Your task to perform on an android device: Go to Wikipedia Image 0: 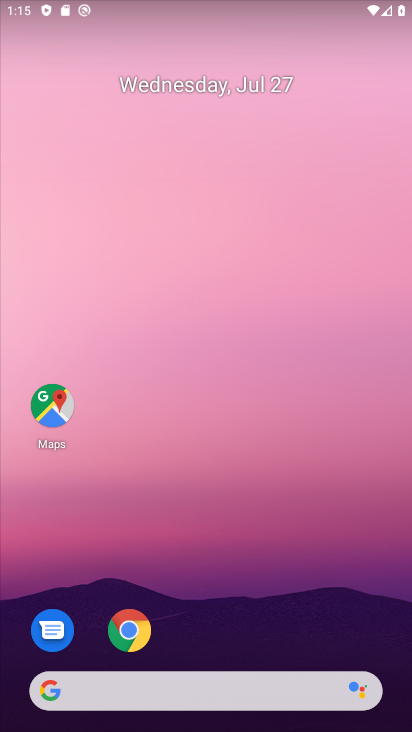
Step 0: drag from (221, 673) to (288, 143)
Your task to perform on an android device: Go to Wikipedia Image 1: 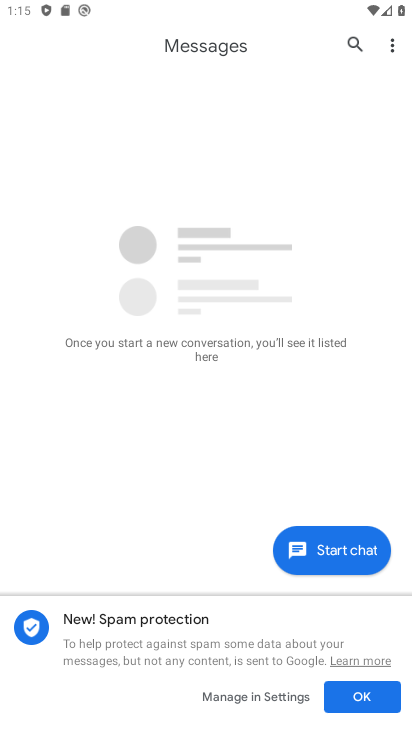
Step 1: press home button
Your task to perform on an android device: Go to Wikipedia Image 2: 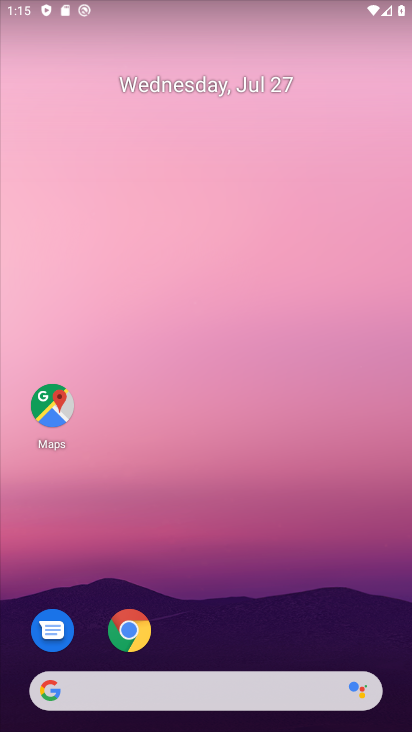
Step 2: click (149, 632)
Your task to perform on an android device: Go to Wikipedia Image 3: 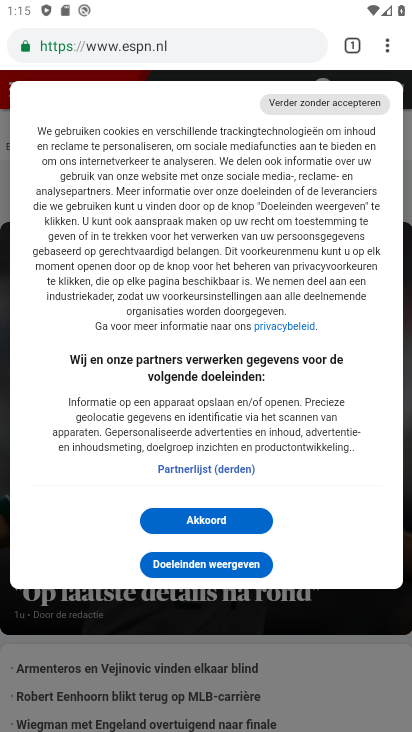
Step 3: click (174, 42)
Your task to perform on an android device: Go to Wikipedia Image 4: 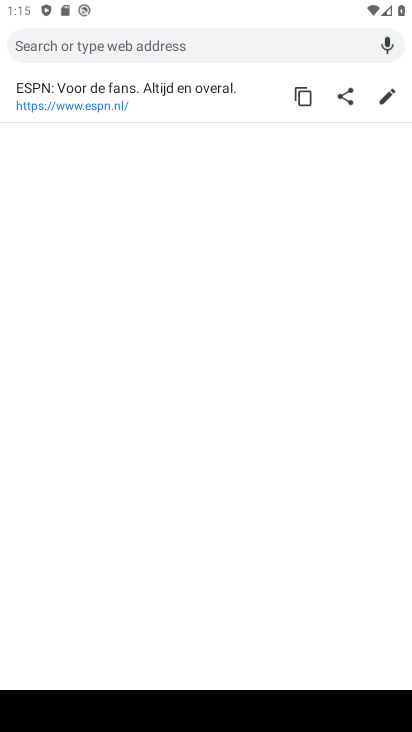
Step 4: type "wikipedia"
Your task to perform on an android device: Go to Wikipedia Image 5: 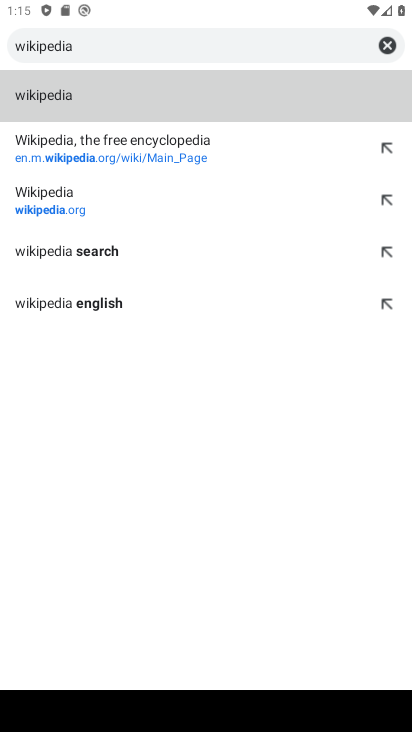
Step 5: click (125, 144)
Your task to perform on an android device: Go to Wikipedia Image 6: 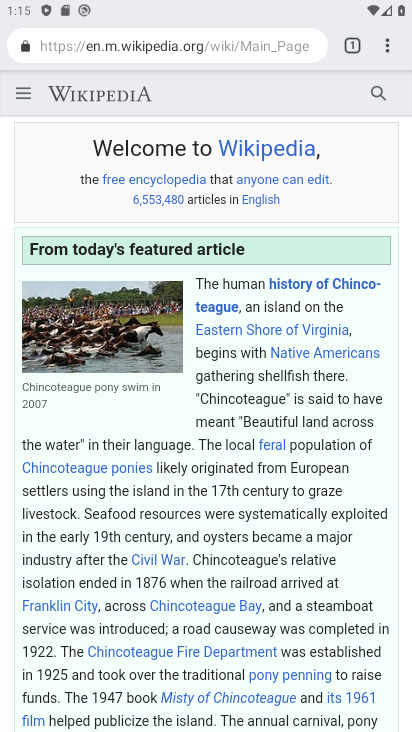
Step 6: task complete